Your task to perform on an android device: Go to battery settings Image 0: 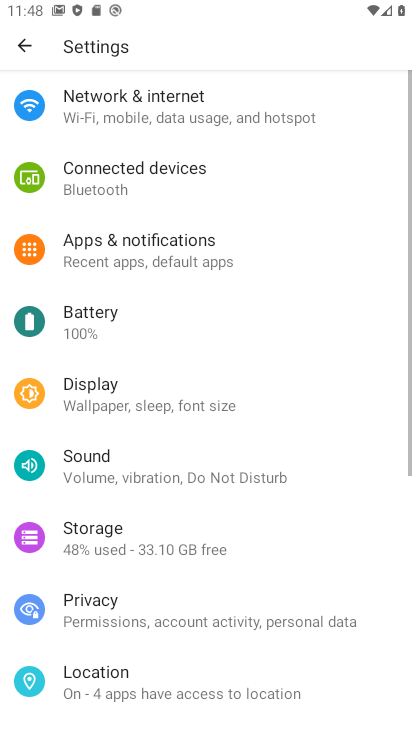
Step 0: click (133, 332)
Your task to perform on an android device: Go to battery settings Image 1: 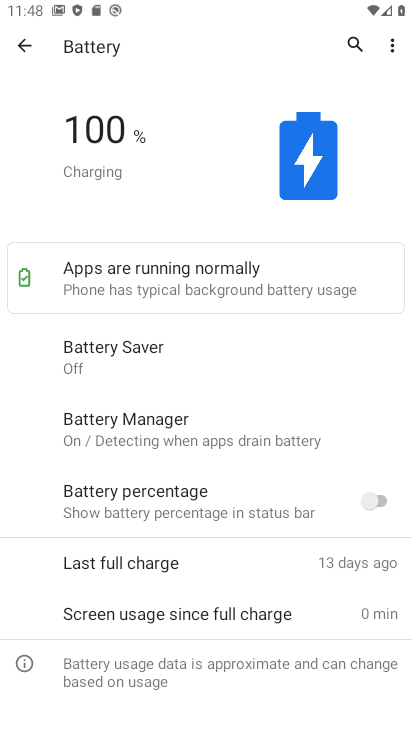
Step 1: task complete